Your task to perform on an android device: clear history in the chrome app Image 0: 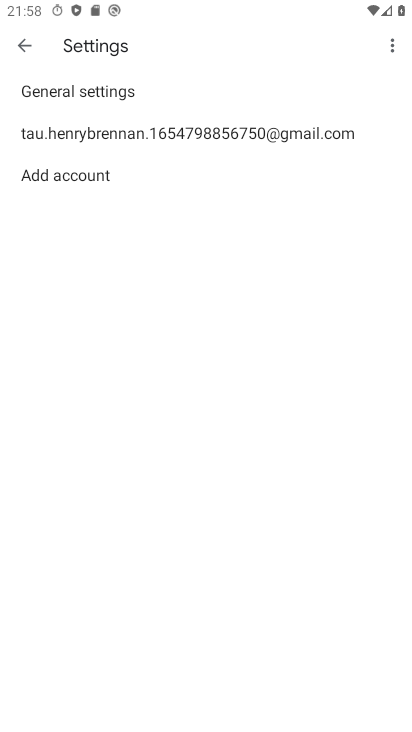
Step 0: press back button
Your task to perform on an android device: clear history in the chrome app Image 1: 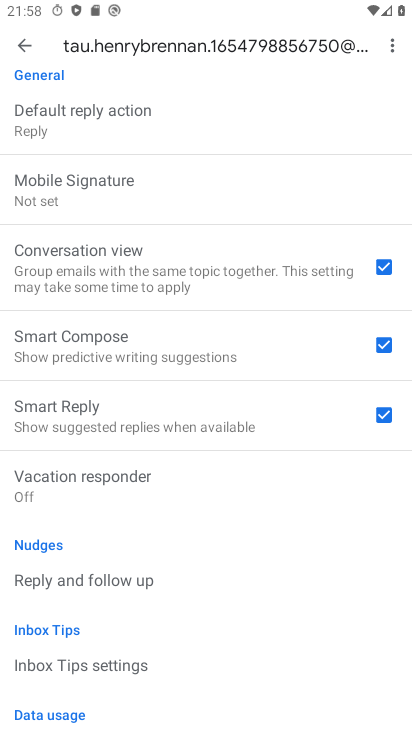
Step 1: press back button
Your task to perform on an android device: clear history in the chrome app Image 2: 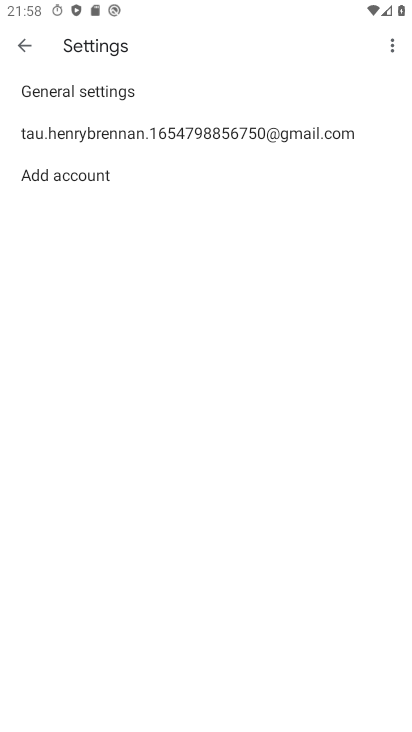
Step 2: press back button
Your task to perform on an android device: clear history in the chrome app Image 3: 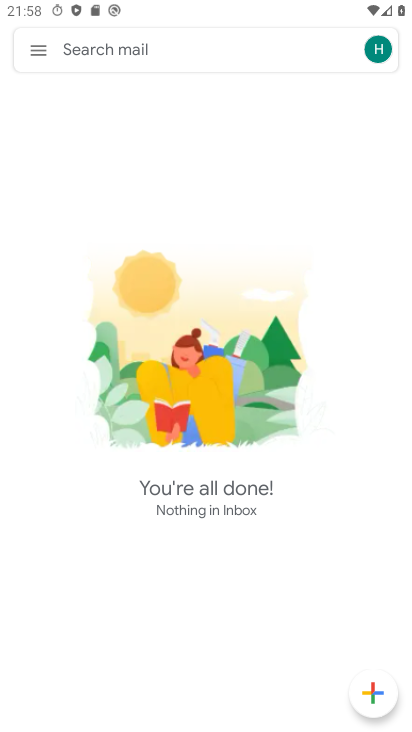
Step 3: press back button
Your task to perform on an android device: clear history in the chrome app Image 4: 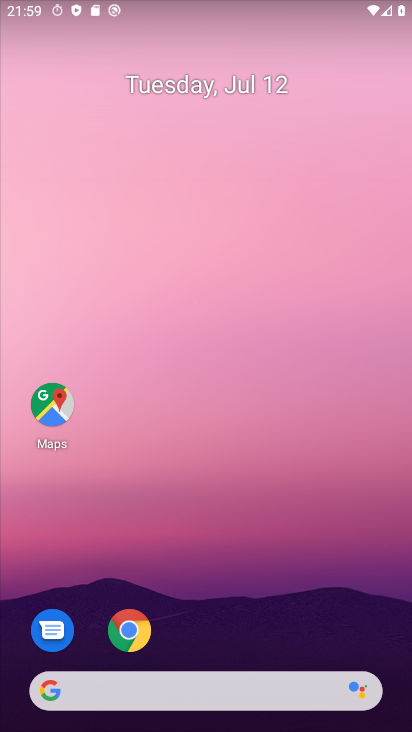
Step 4: click (135, 623)
Your task to perform on an android device: clear history in the chrome app Image 5: 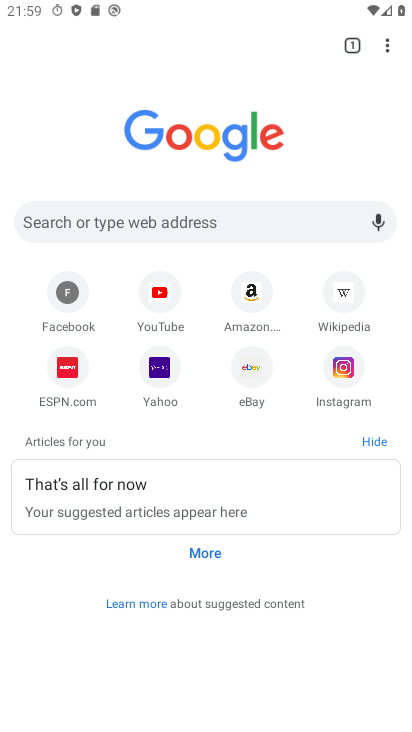
Step 5: task complete